Your task to perform on an android device: open app "Google News" (install if not already installed) Image 0: 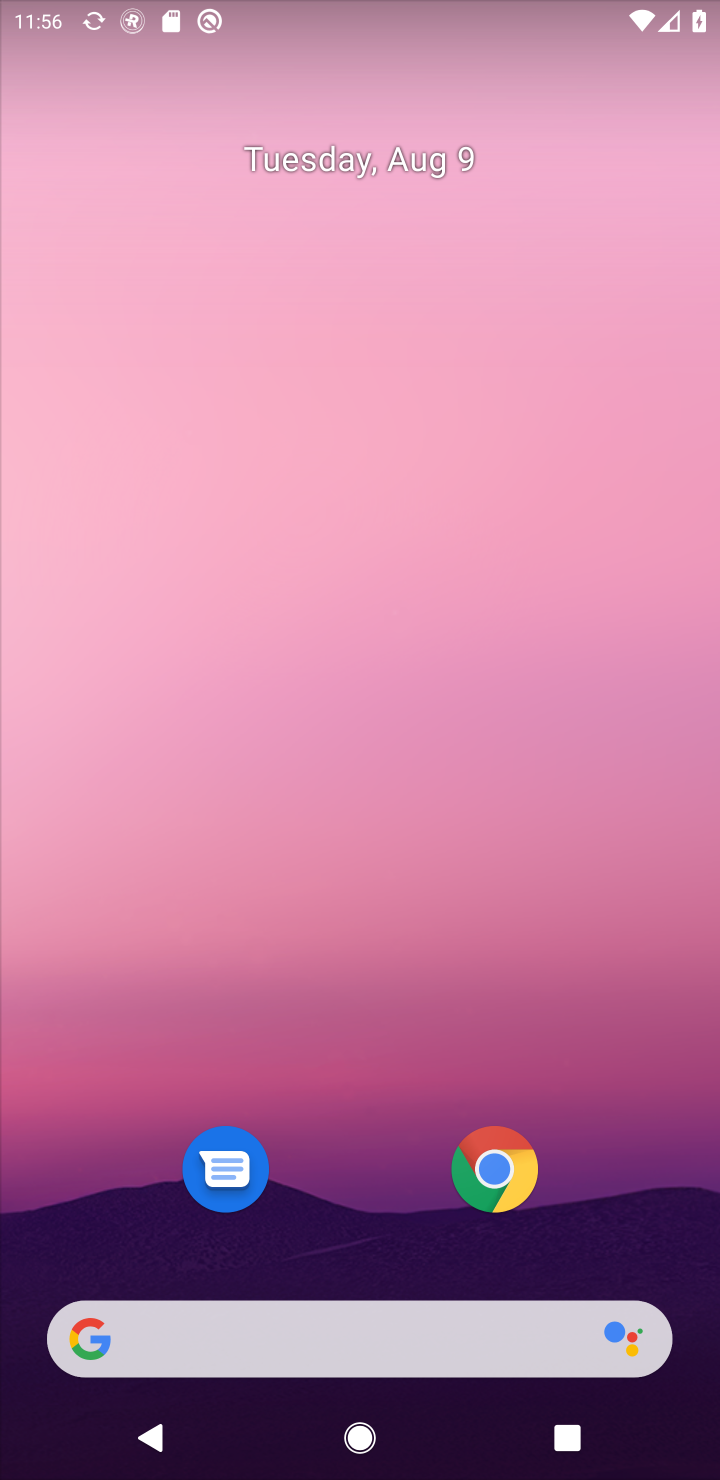
Step 0: press home button
Your task to perform on an android device: open app "Google News" (install if not already installed) Image 1: 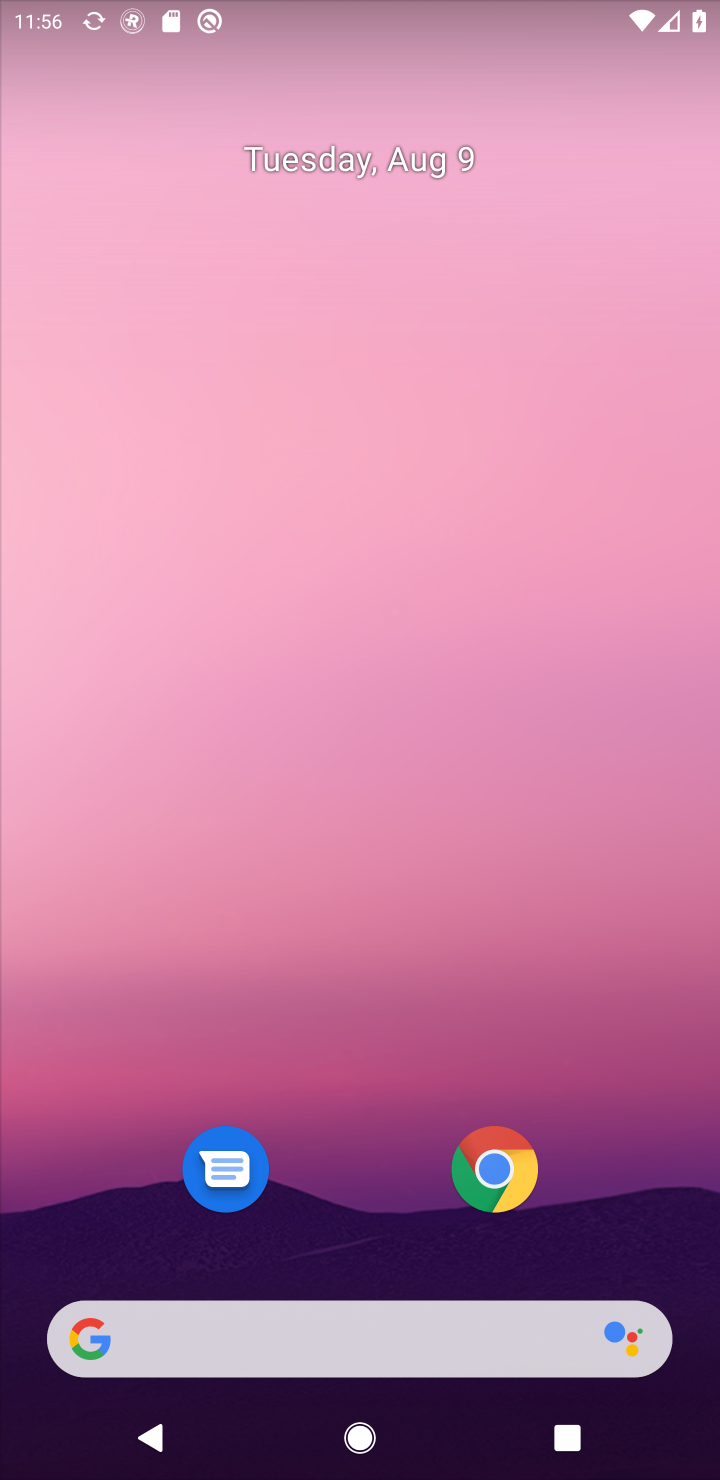
Step 1: drag from (594, 1227) to (590, 106)
Your task to perform on an android device: open app "Google News" (install if not already installed) Image 2: 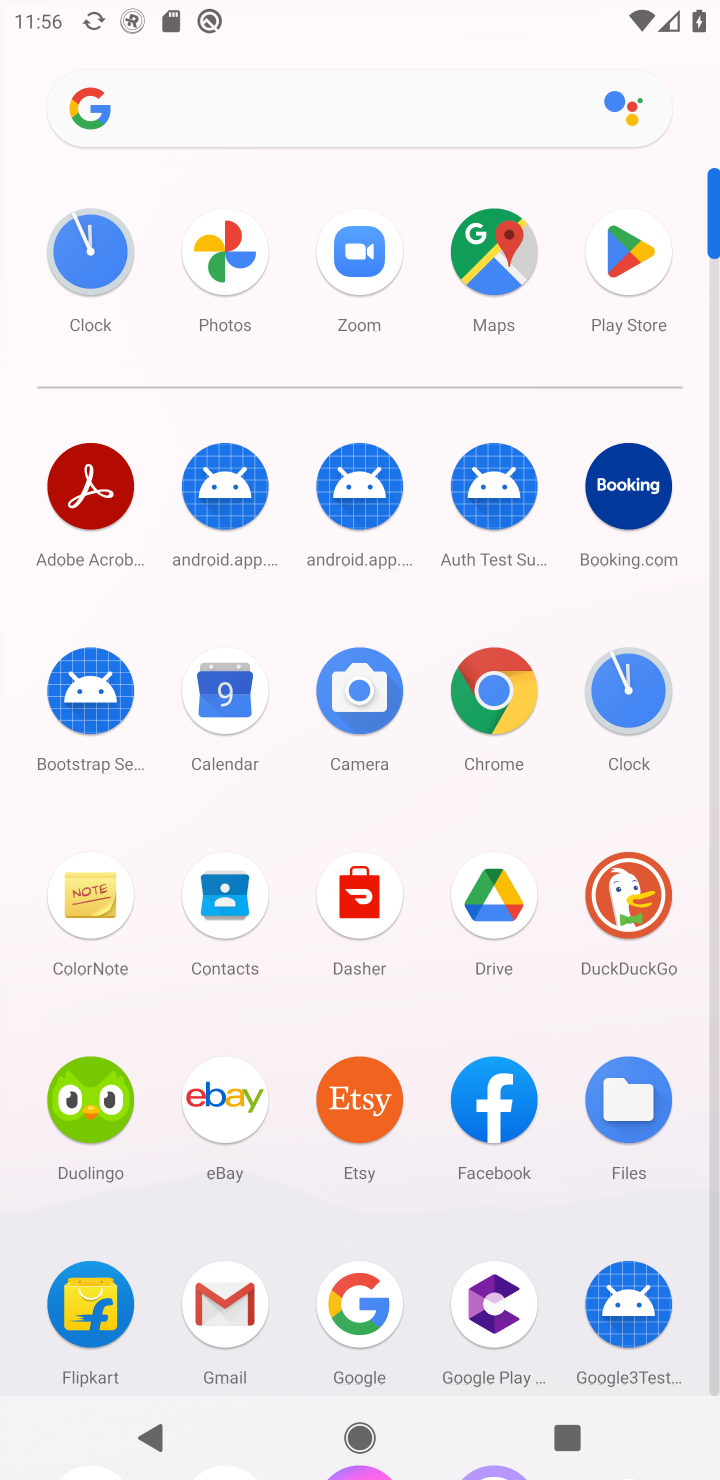
Step 2: click (622, 233)
Your task to perform on an android device: open app "Google News" (install if not already installed) Image 3: 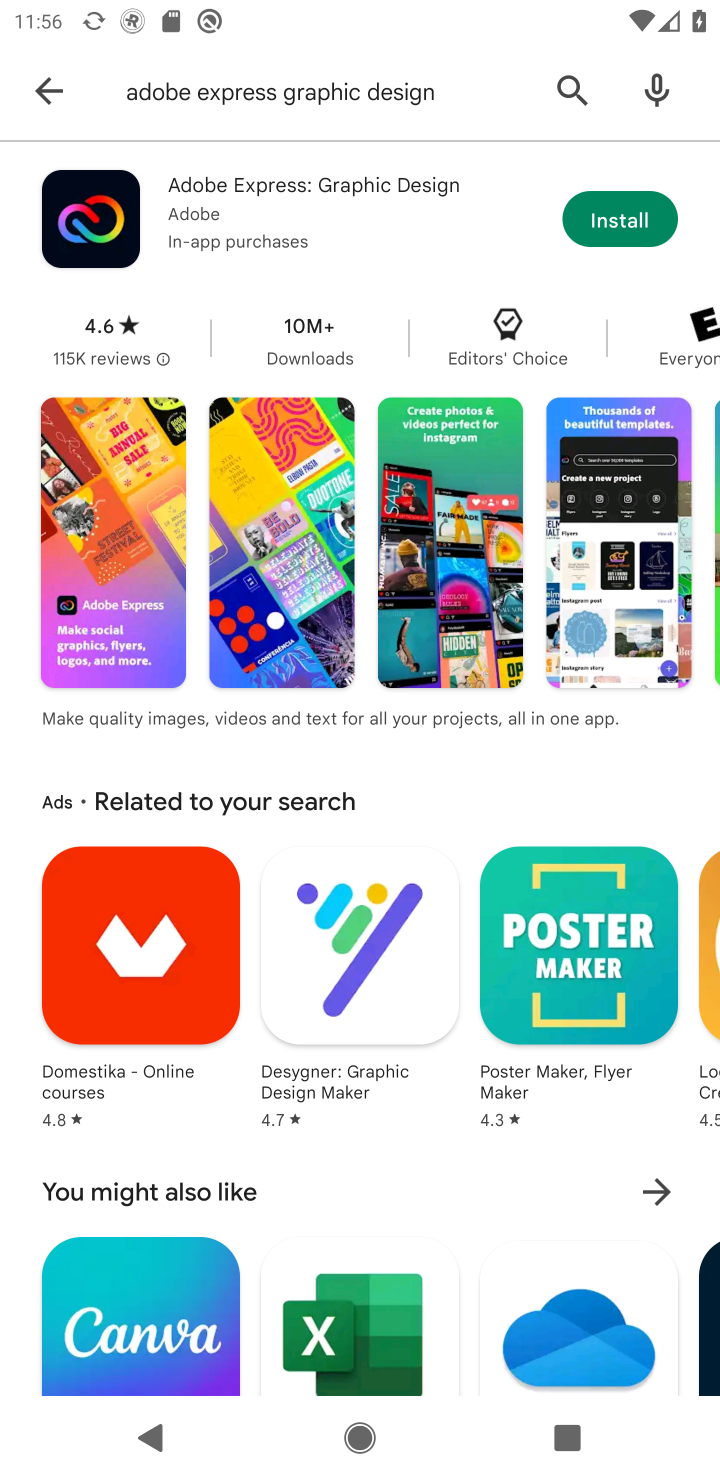
Step 3: click (563, 81)
Your task to perform on an android device: open app "Google News" (install if not already installed) Image 4: 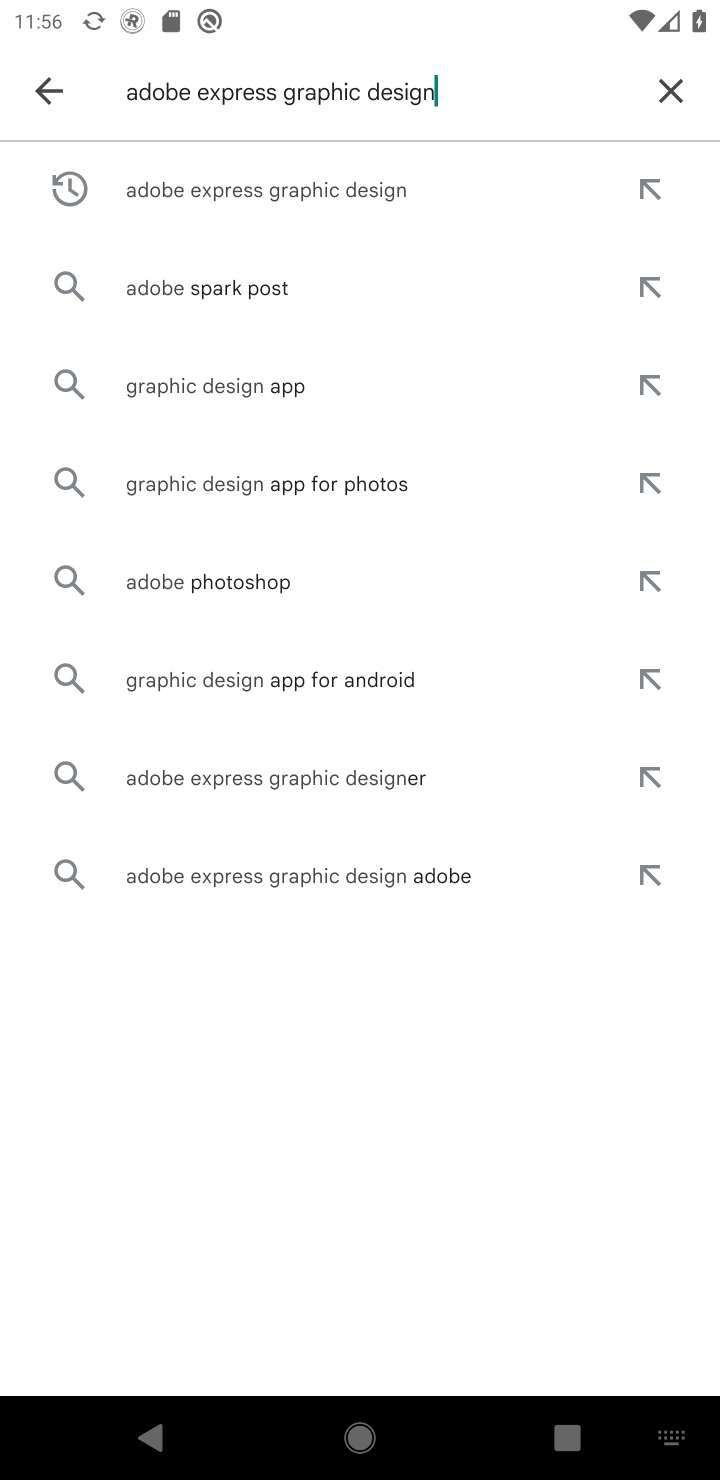
Step 4: click (673, 89)
Your task to perform on an android device: open app "Google News" (install if not already installed) Image 5: 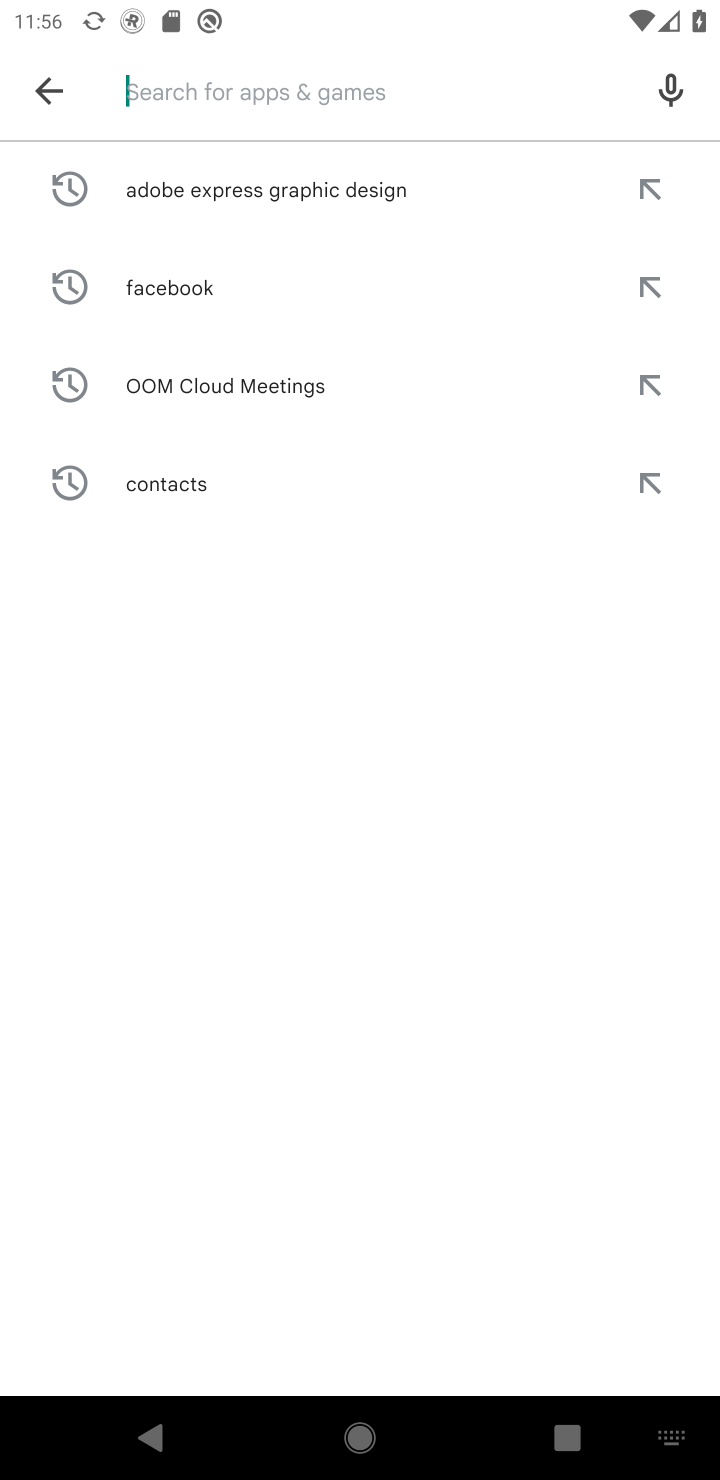
Step 5: press enter
Your task to perform on an android device: open app "Google News" (install if not already installed) Image 6: 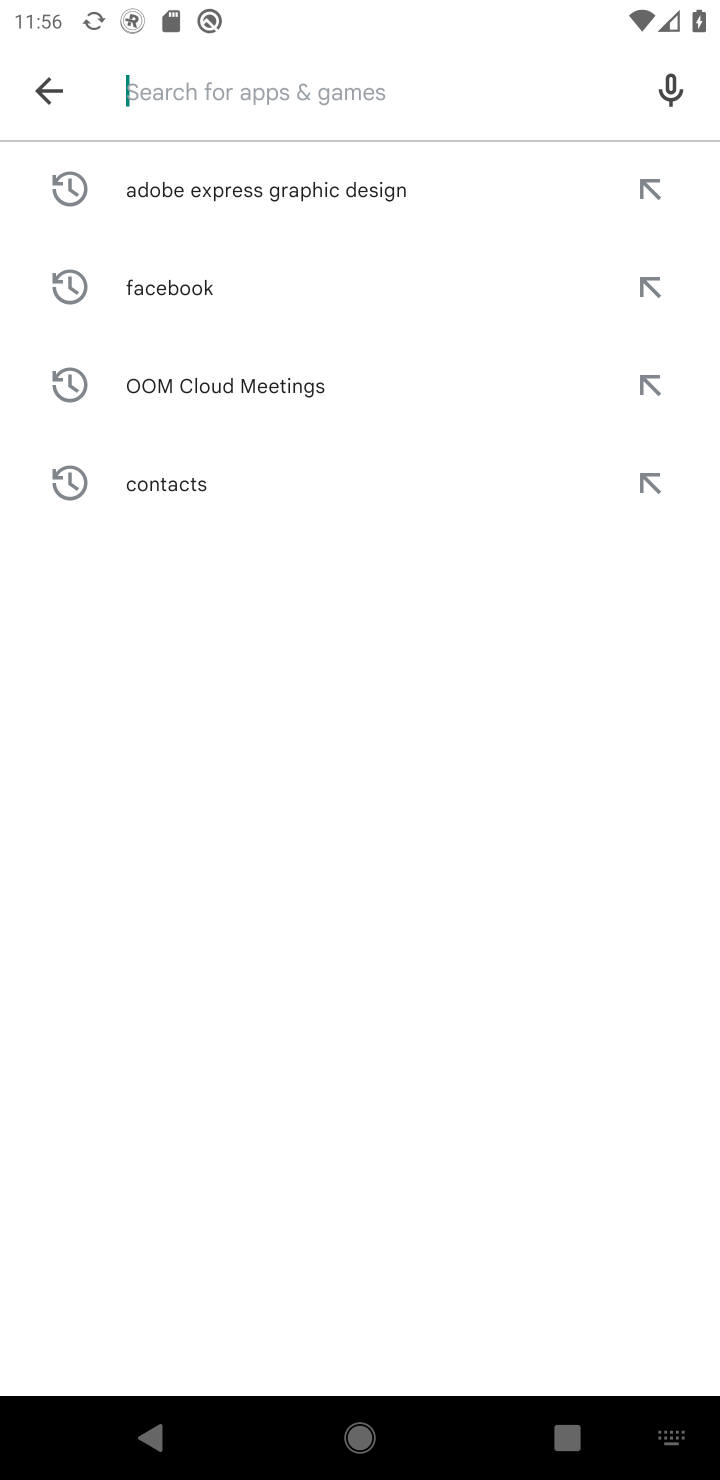
Step 6: type "google news"
Your task to perform on an android device: open app "Google News" (install if not already installed) Image 7: 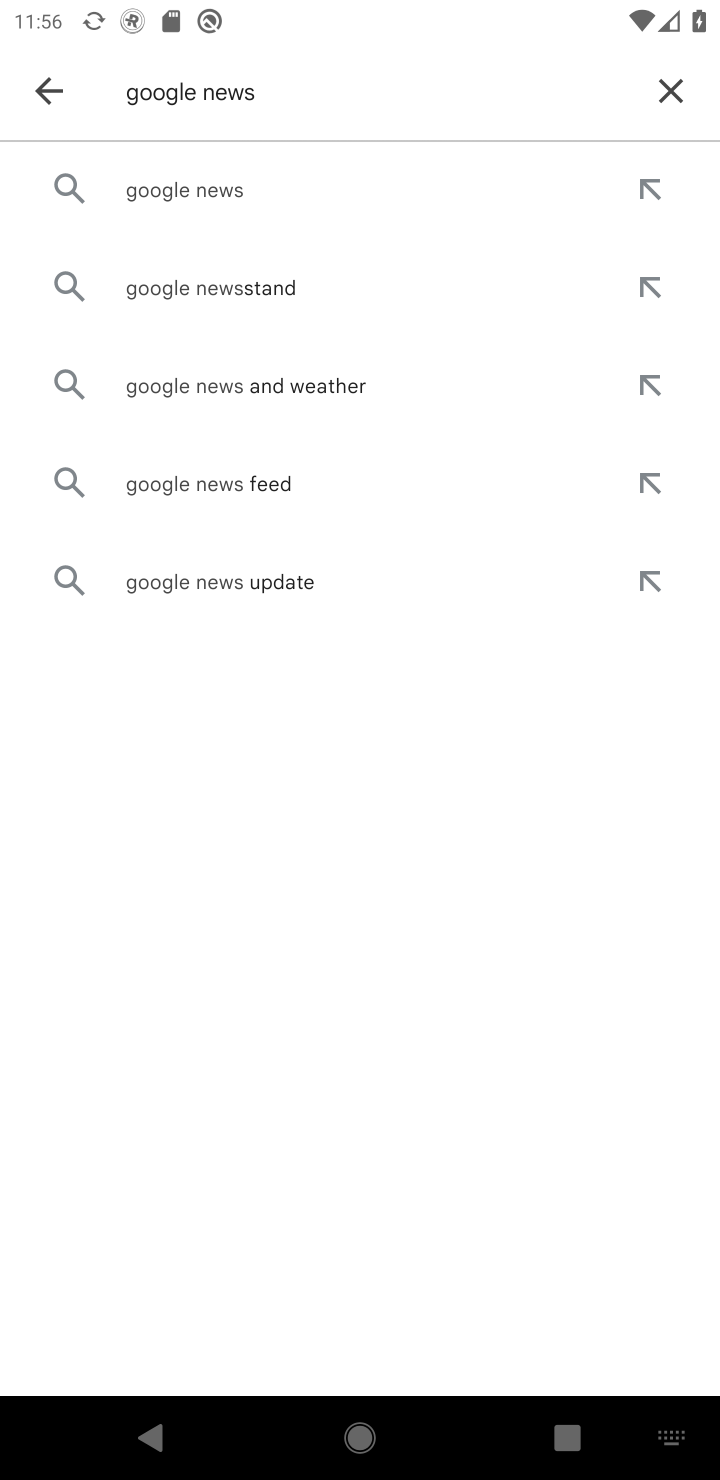
Step 7: click (310, 177)
Your task to perform on an android device: open app "Google News" (install if not already installed) Image 8: 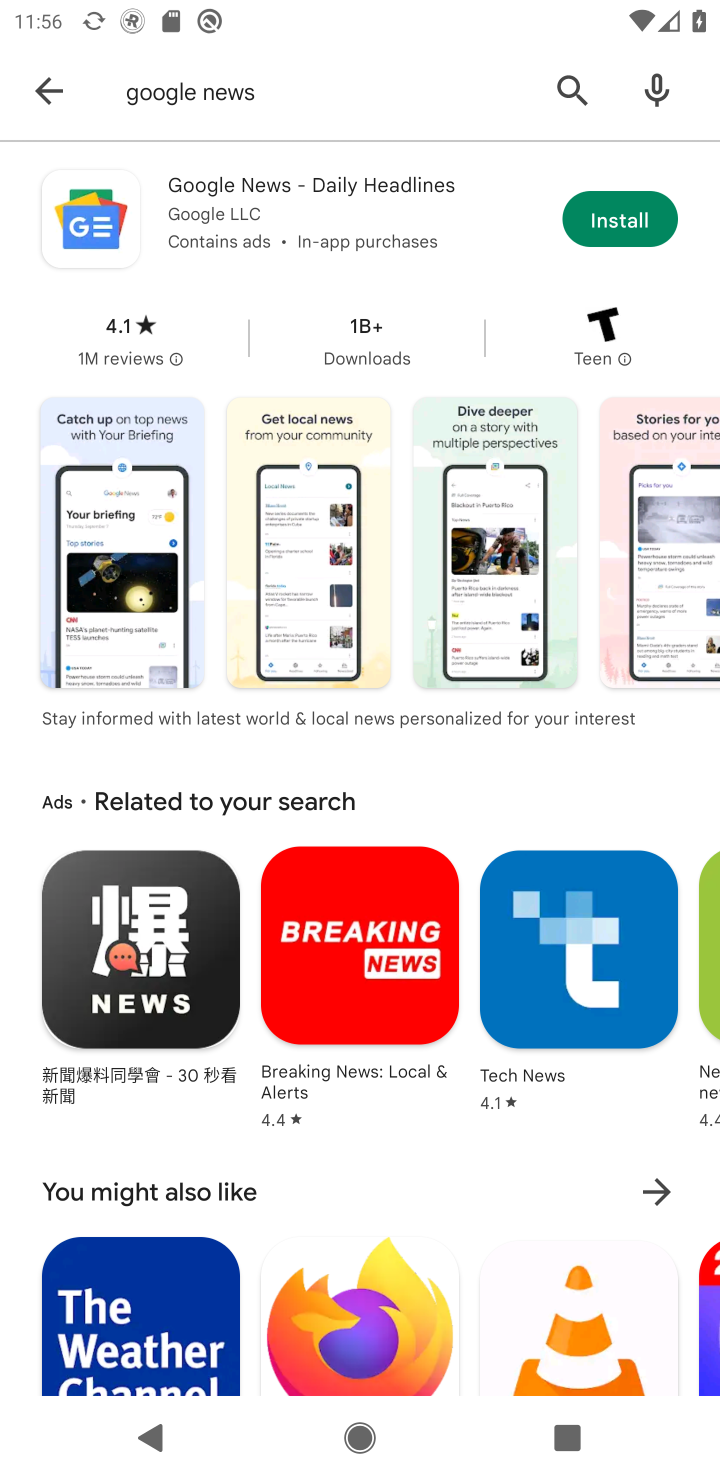
Step 8: click (611, 214)
Your task to perform on an android device: open app "Google News" (install if not already installed) Image 9: 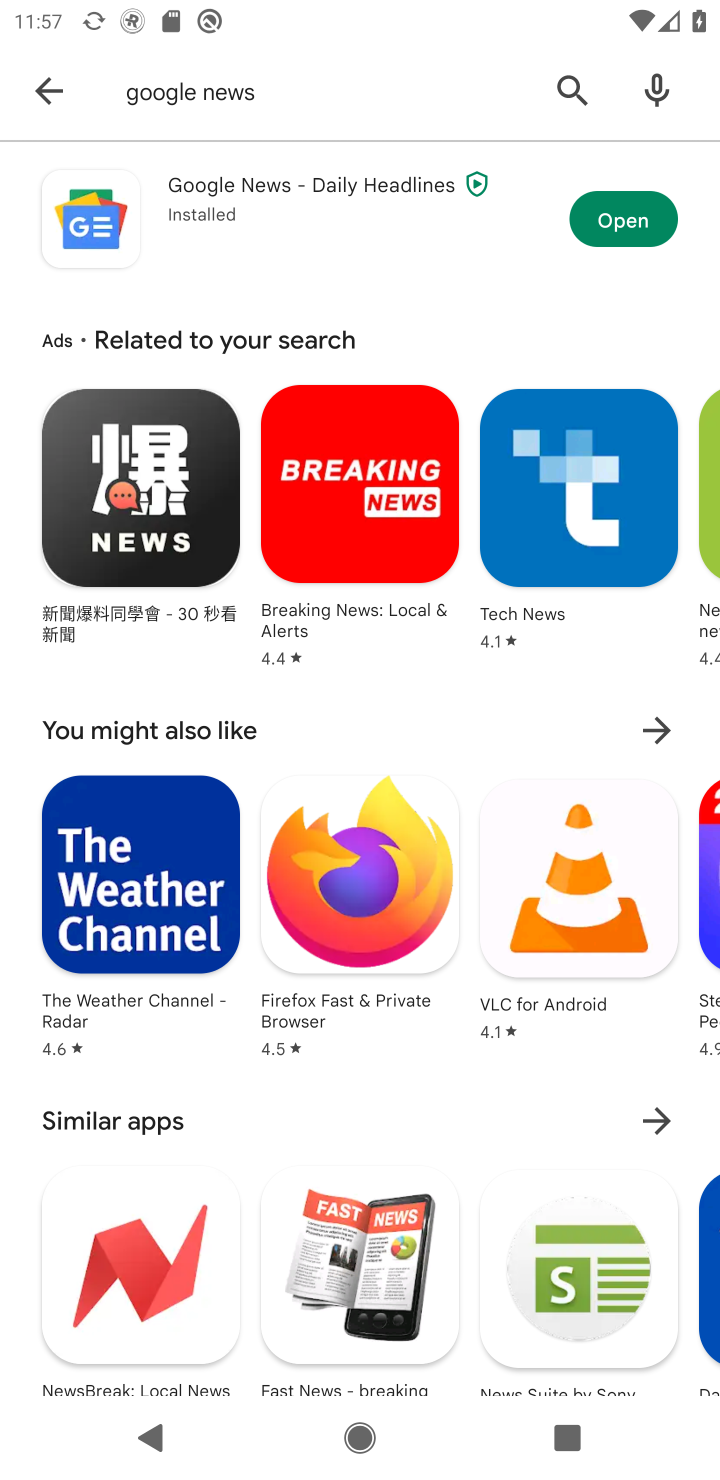
Step 9: click (613, 220)
Your task to perform on an android device: open app "Google News" (install if not already installed) Image 10: 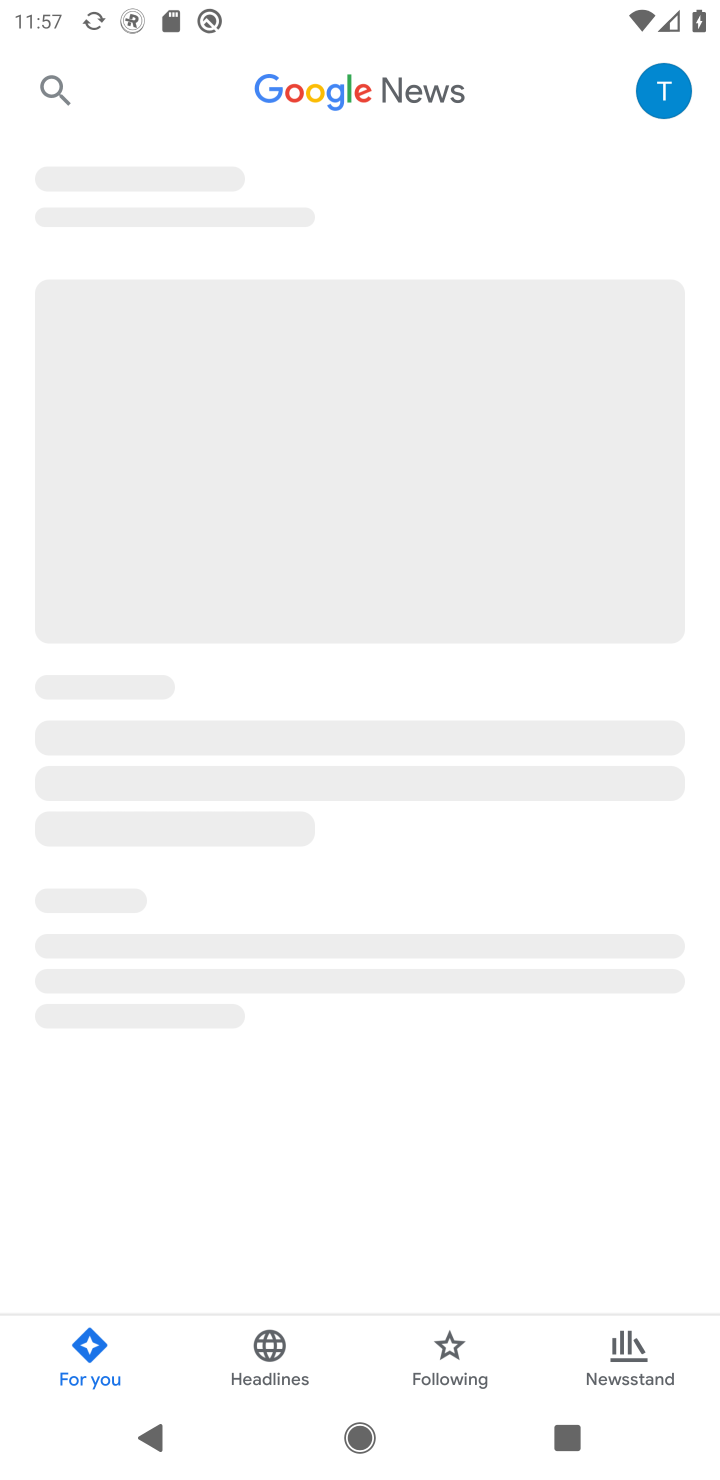
Step 10: task complete